Your task to perform on an android device: Open the stopwatch Image 0: 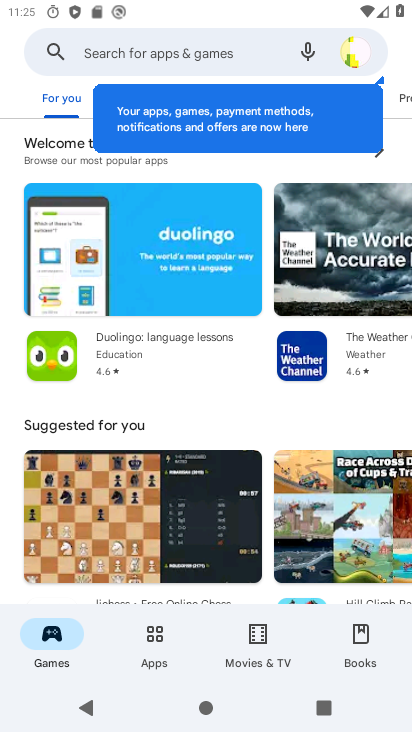
Step 0: press home button
Your task to perform on an android device: Open the stopwatch Image 1: 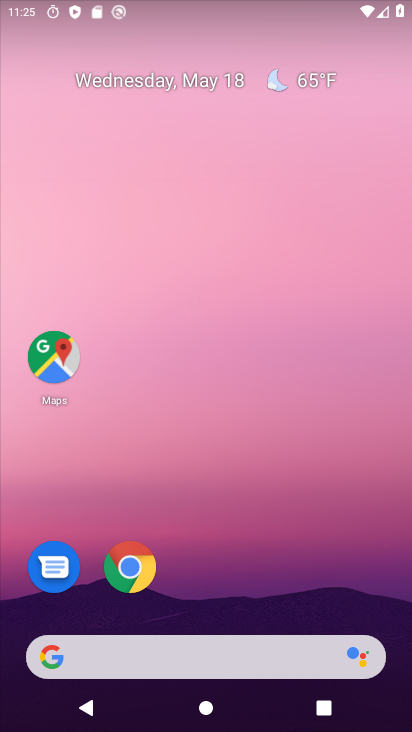
Step 1: drag from (261, 563) to (293, 102)
Your task to perform on an android device: Open the stopwatch Image 2: 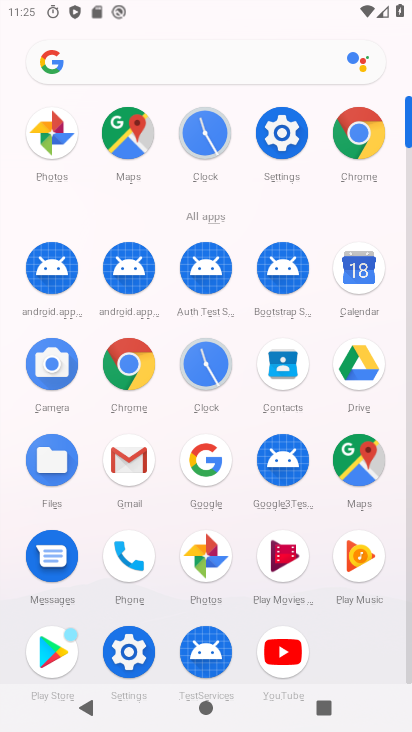
Step 2: click (205, 151)
Your task to perform on an android device: Open the stopwatch Image 3: 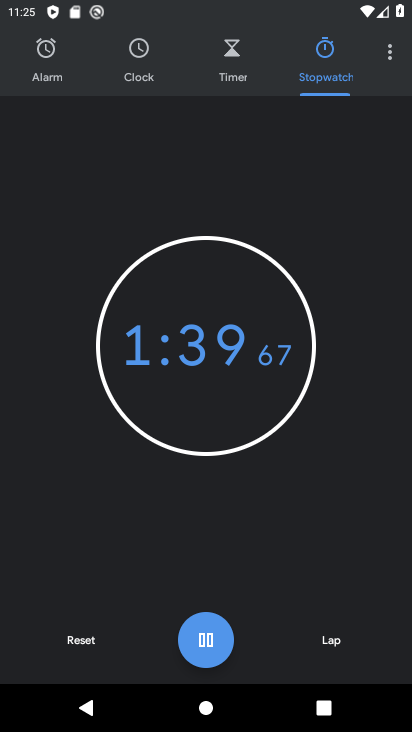
Step 3: task complete